Your task to perform on an android device: change alarm snooze length Image 0: 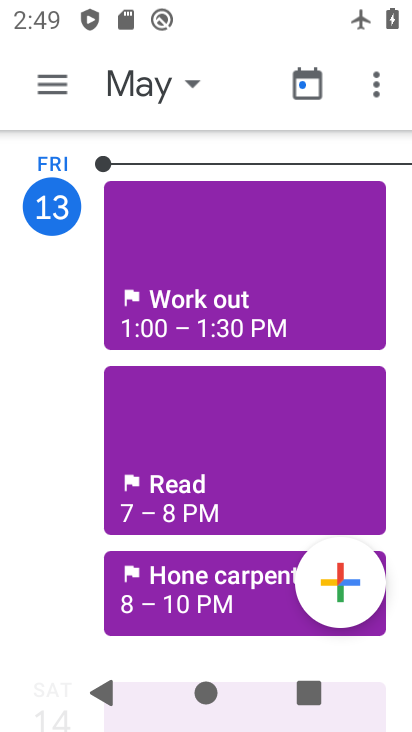
Step 0: press home button
Your task to perform on an android device: change alarm snooze length Image 1: 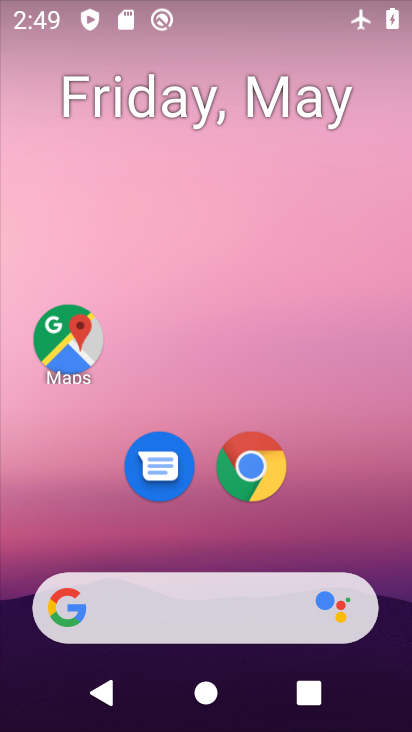
Step 1: drag from (211, 549) to (225, 40)
Your task to perform on an android device: change alarm snooze length Image 2: 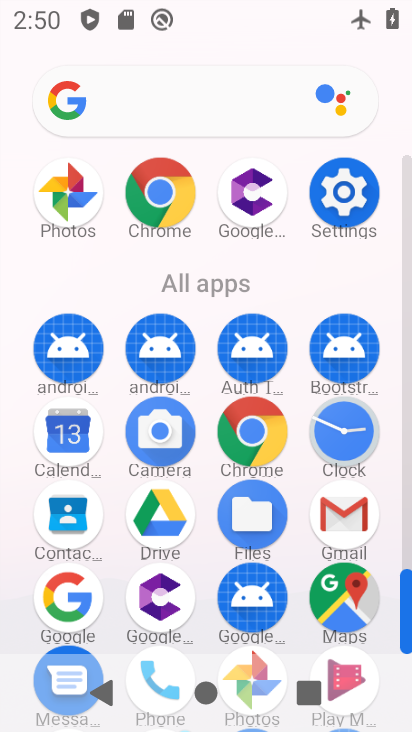
Step 2: click (345, 421)
Your task to perform on an android device: change alarm snooze length Image 3: 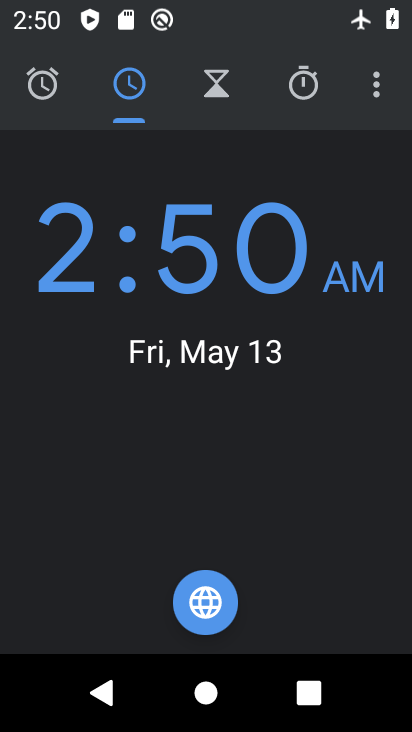
Step 3: click (367, 84)
Your task to perform on an android device: change alarm snooze length Image 4: 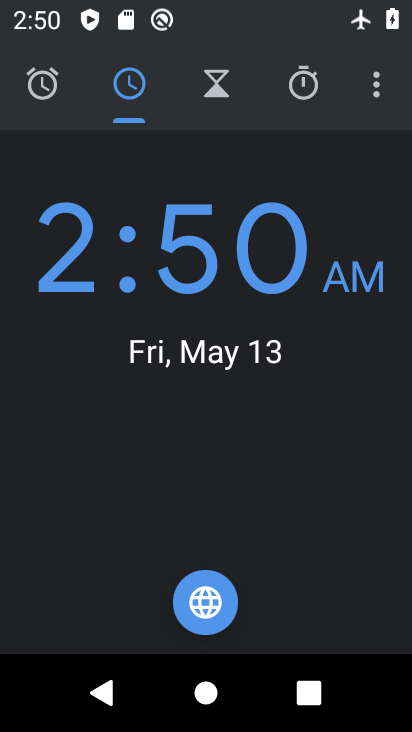
Step 4: click (367, 84)
Your task to perform on an android device: change alarm snooze length Image 5: 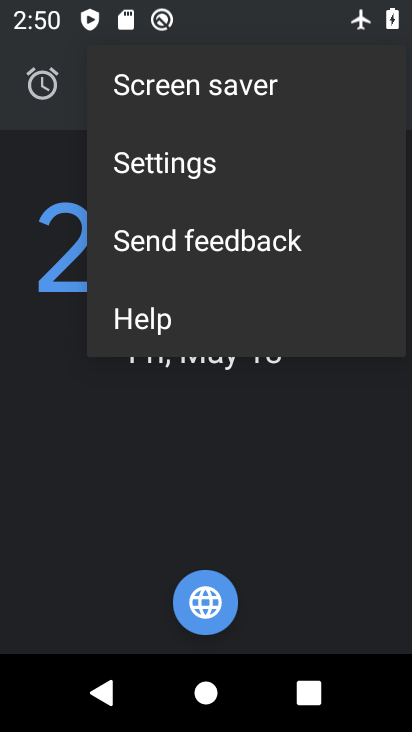
Step 5: click (235, 163)
Your task to perform on an android device: change alarm snooze length Image 6: 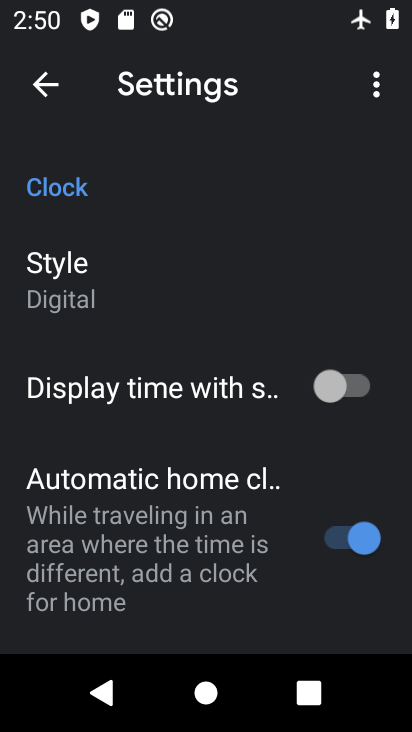
Step 6: drag from (219, 585) to (221, 107)
Your task to perform on an android device: change alarm snooze length Image 7: 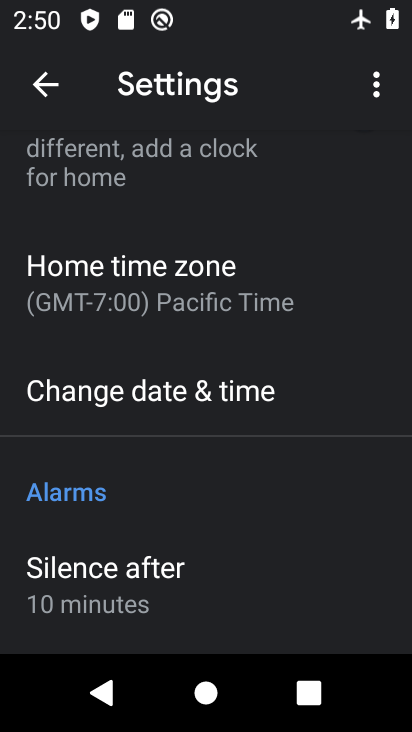
Step 7: drag from (183, 505) to (206, 214)
Your task to perform on an android device: change alarm snooze length Image 8: 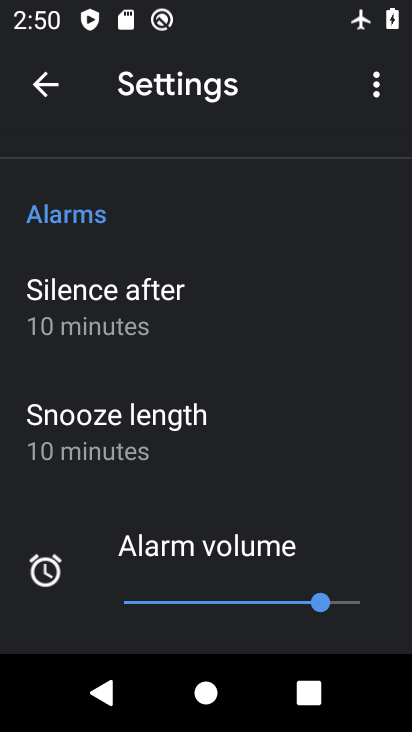
Step 8: click (170, 431)
Your task to perform on an android device: change alarm snooze length Image 9: 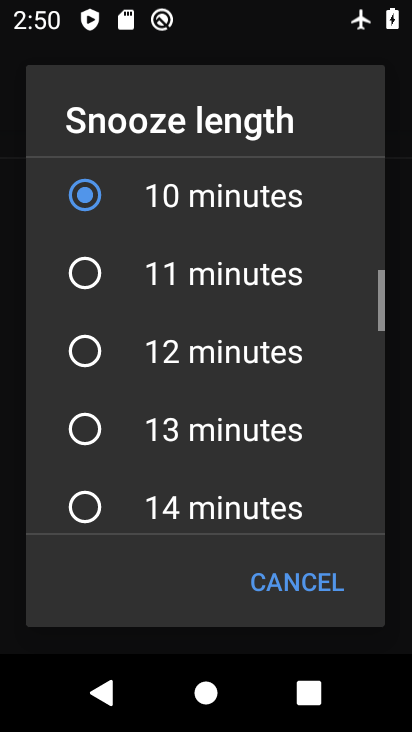
Step 9: drag from (119, 224) to (137, 716)
Your task to perform on an android device: change alarm snooze length Image 10: 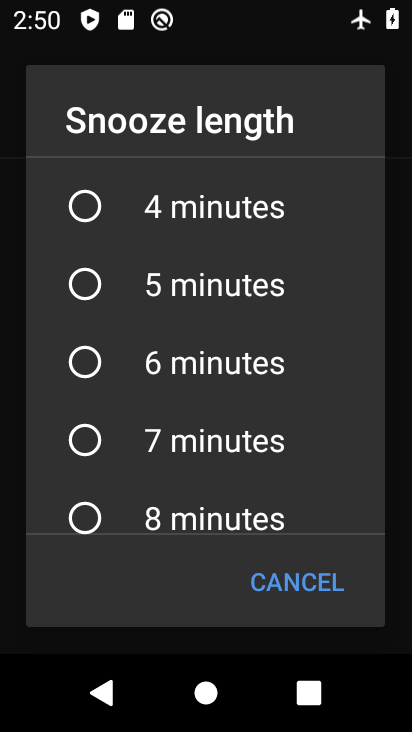
Step 10: click (90, 202)
Your task to perform on an android device: change alarm snooze length Image 11: 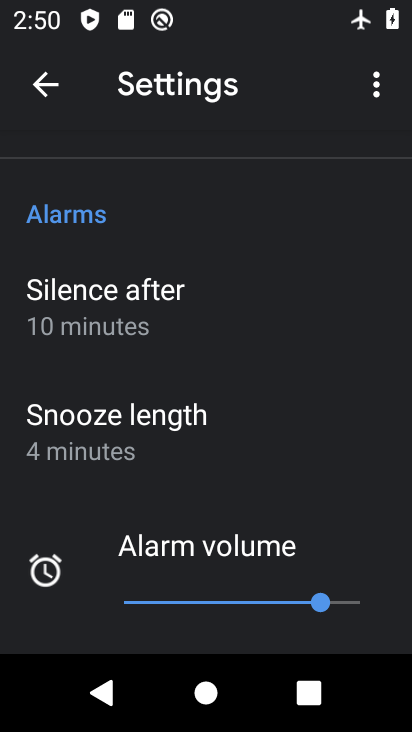
Step 11: task complete